Your task to perform on an android device: turn notification dots off Image 0: 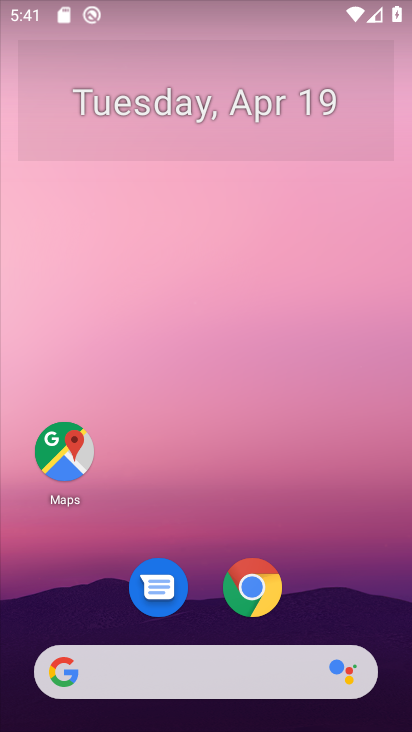
Step 0: drag from (340, 256) to (182, 6)
Your task to perform on an android device: turn notification dots off Image 1: 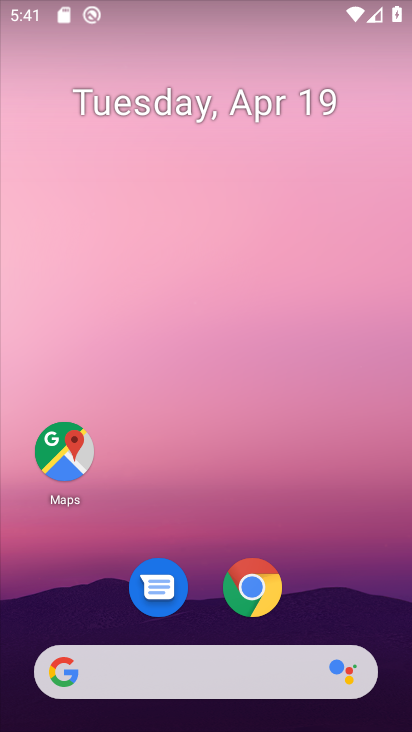
Step 1: drag from (365, 385) to (395, 87)
Your task to perform on an android device: turn notification dots off Image 2: 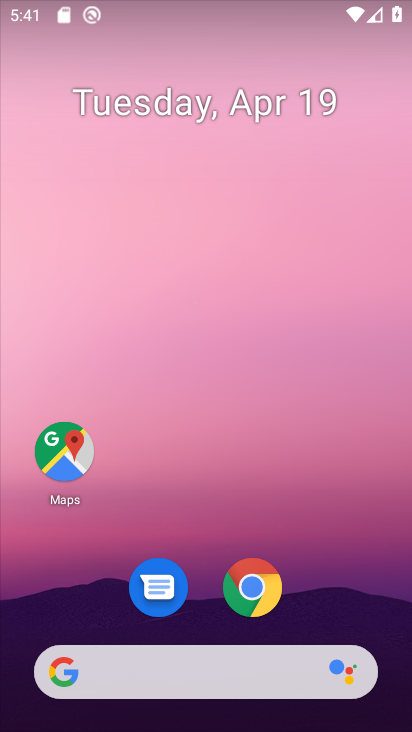
Step 2: drag from (204, 560) to (317, 11)
Your task to perform on an android device: turn notification dots off Image 3: 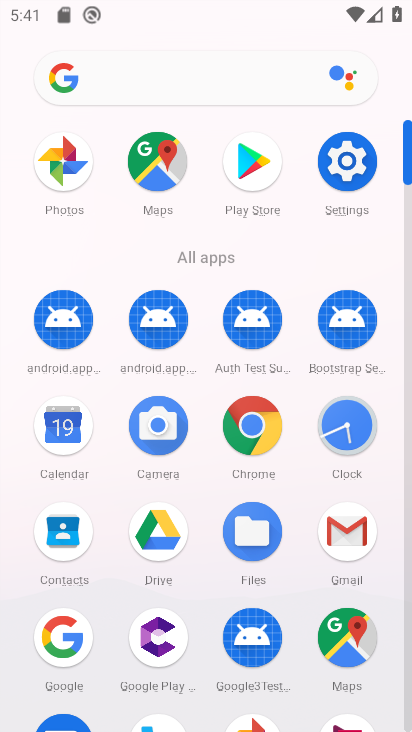
Step 3: click (356, 163)
Your task to perform on an android device: turn notification dots off Image 4: 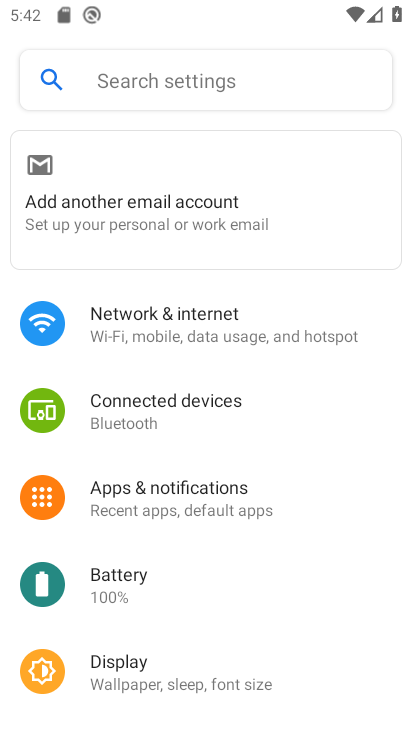
Step 4: drag from (178, 623) to (187, 427)
Your task to perform on an android device: turn notification dots off Image 5: 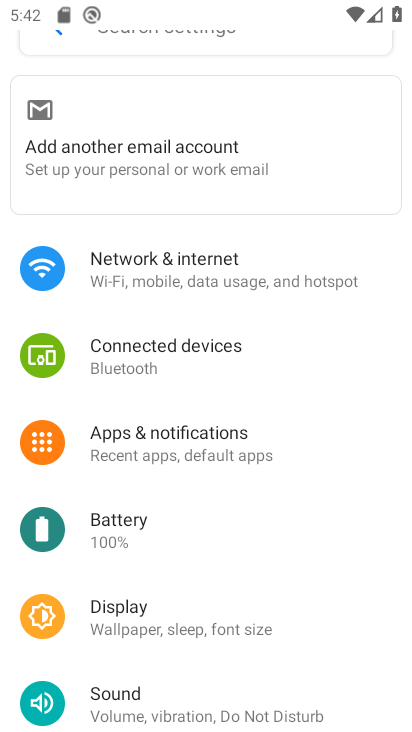
Step 5: click (160, 450)
Your task to perform on an android device: turn notification dots off Image 6: 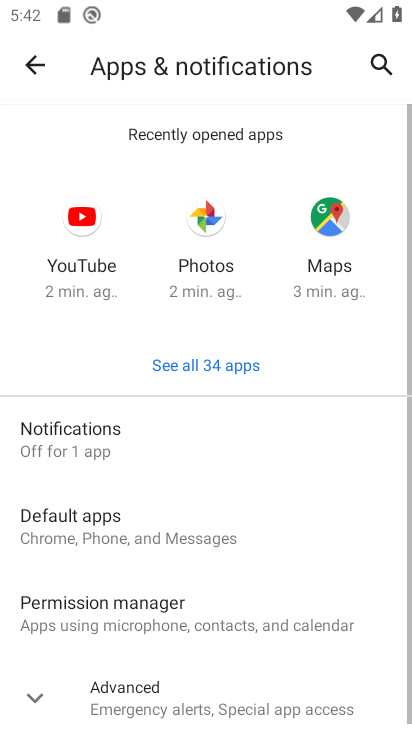
Step 6: drag from (208, 547) to (234, 85)
Your task to perform on an android device: turn notification dots off Image 7: 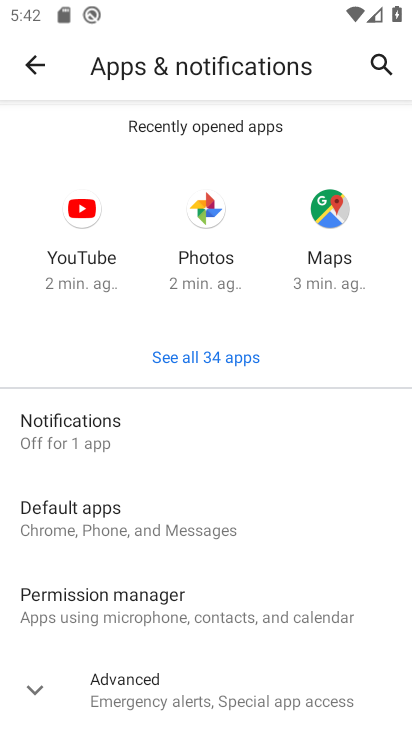
Step 7: drag from (222, 624) to (292, 183)
Your task to perform on an android device: turn notification dots off Image 8: 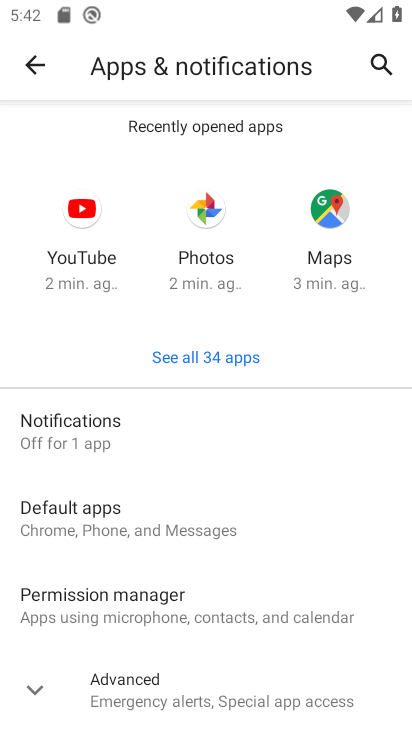
Step 8: click (243, 691)
Your task to perform on an android device: turn notification dots off Image 9: 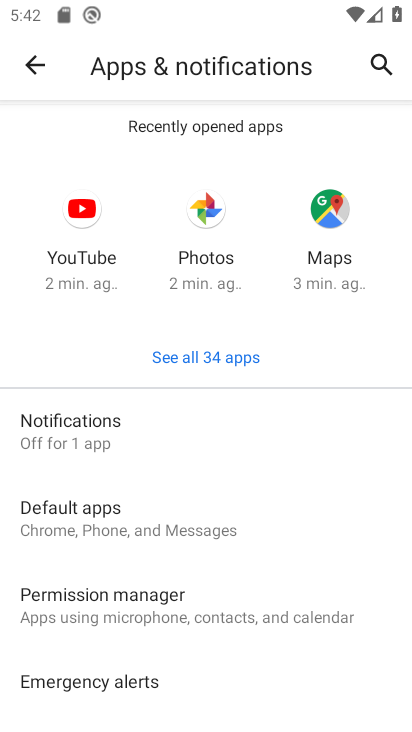
Step 9: click (82, 428)
Your task to perform on an android device: turn notification dots off Image 10: 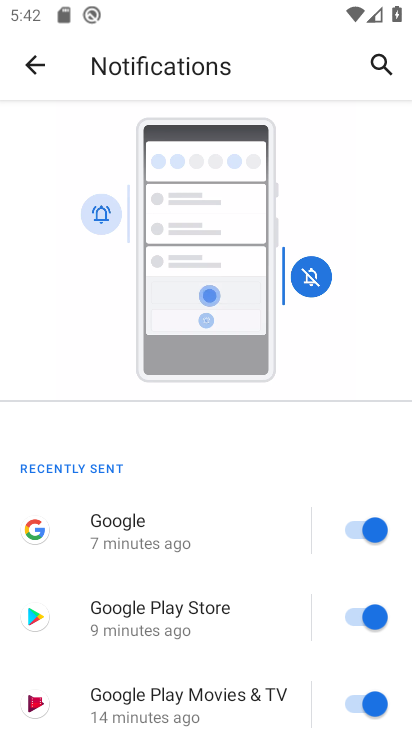
Step 10: drag from (225, 555) to (337, 204)
Your task to perform on an android device: turn notification dots off Image 11: 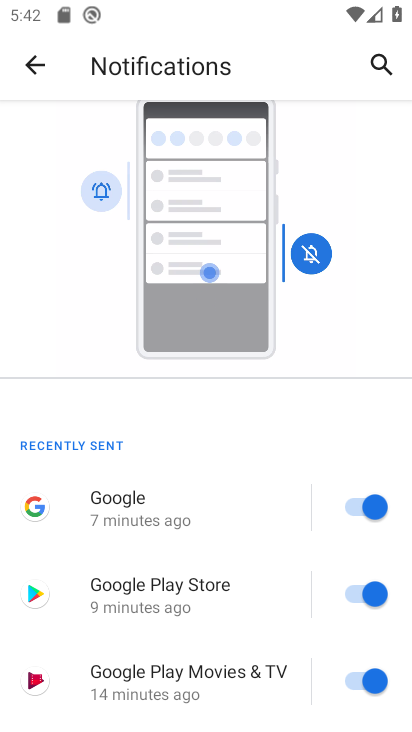
Step 11: drag from (270, 544) to (332, 131)
Your task to perform on an android device: turn notification dots off Image 12: 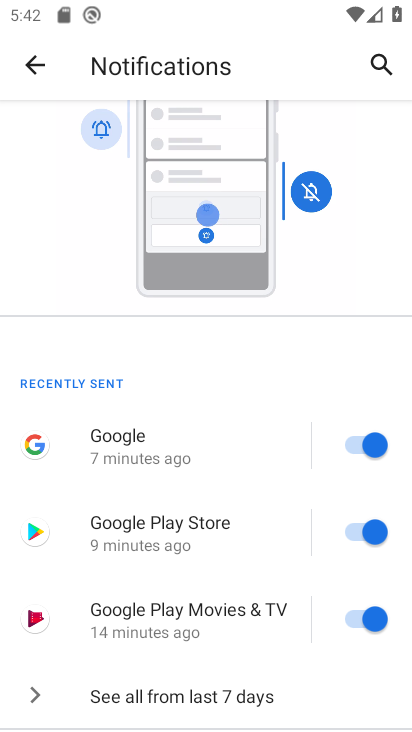
Step 12: drag from (229, 660) to (325, 158)
Your task to perform on an android device: turn notification dots off Image 13: 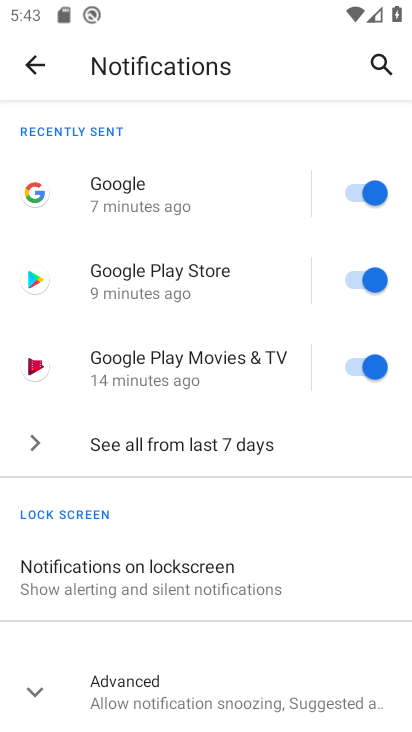
Step 13: drag from (311, 291) to (324, 255)
Your task to perform on an android device: turn notification dots off Image 14: 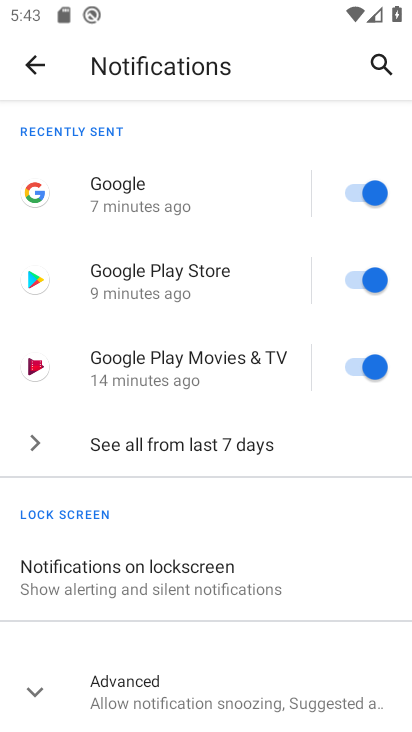
Step 14: click (185, 689)
Your task to perform on an android device: turn notification dots off Image 15: 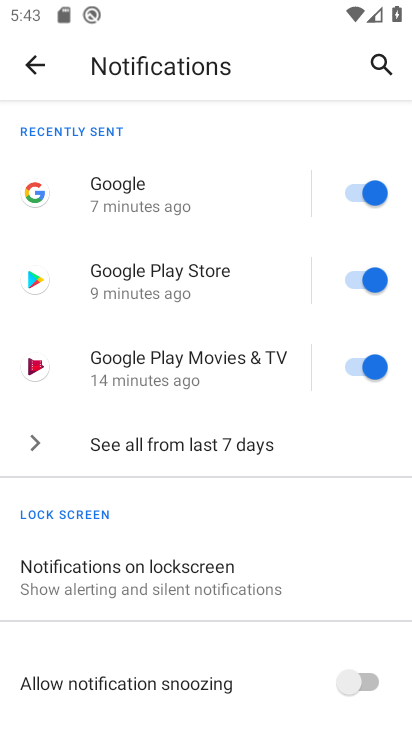
Step 15: drag from (182, 580) to (208, 213)
Your task to perform on an android device: turn notification dots off Image 16: 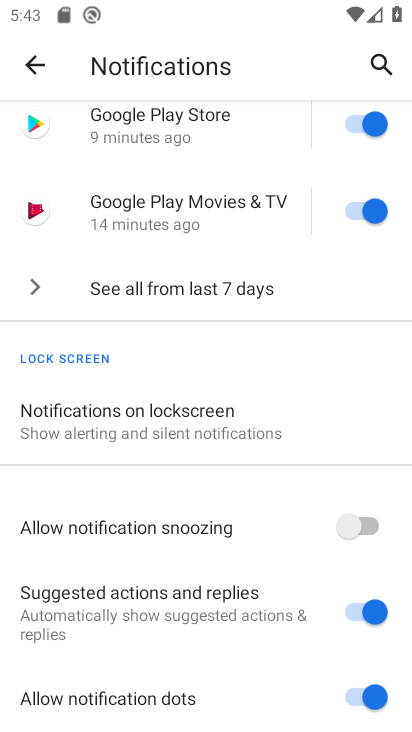
Step 16: drag from (184, 657) to (212, 472)
Your task to perform on an android device: turn notification dots off Image 17: 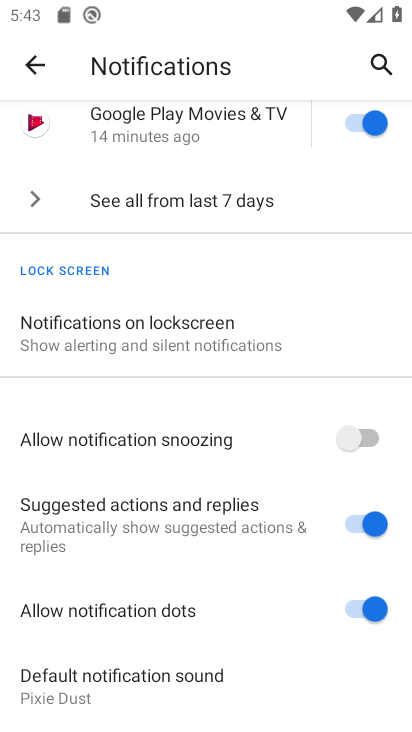
Step 17: click (360, 607)
Your task to perform on an android device: turn notification dots off Image 18: 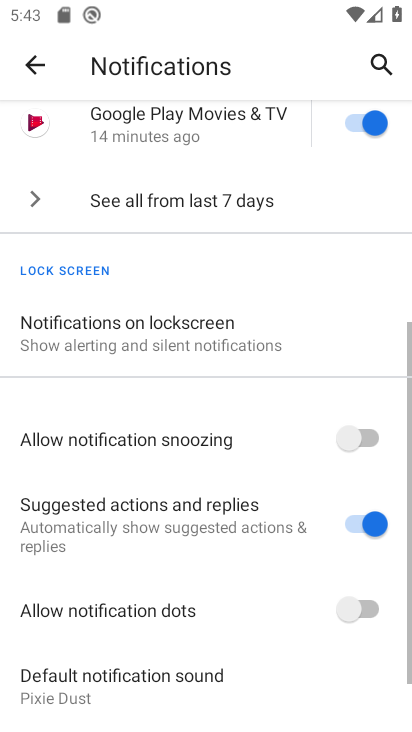
Step 18: task complete